Your task to perform on an android device: Is it going to rain today? Image 0: 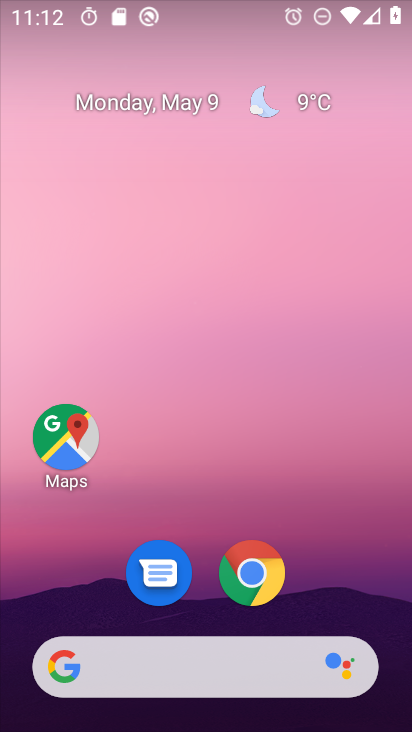
Step 0: drag from (324, 570) to (315, 633)
Your task to perform on an android device: Is it going to rain today? Image 1: 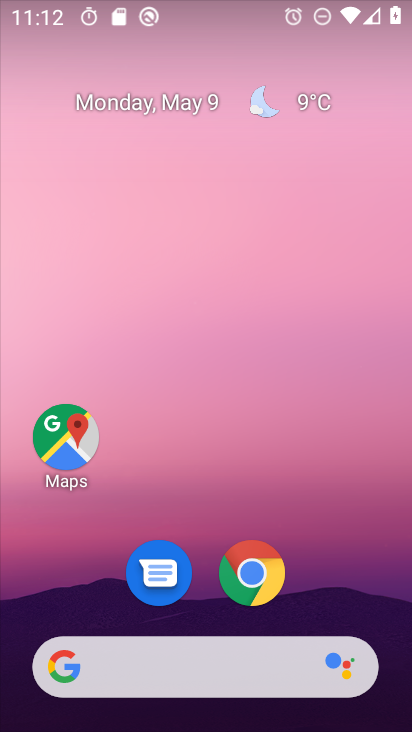
Step 1: click (315, 101)
Your task to perform on an android device: Is it going to rain today? Image 2: 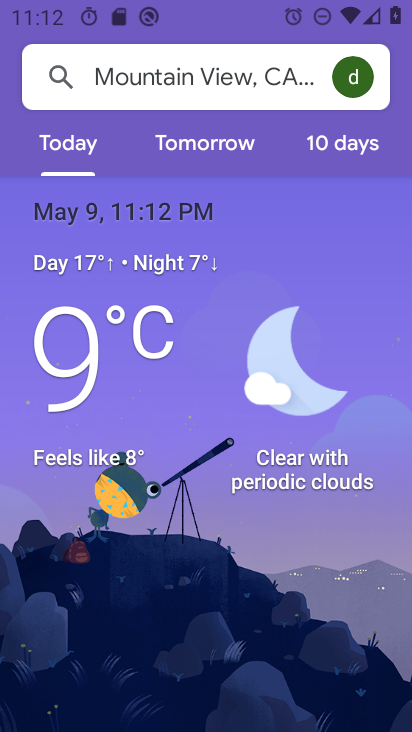
Step 2: task complete